Your task to perform on an android device: toggle wifi Image 0: 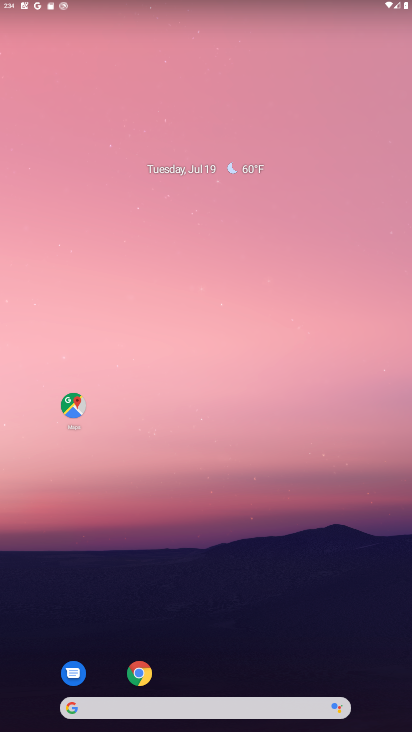
Step 0: drag from (249, 719) to (134, 141)
Your task to perform on an android device: toggle wifi Image 1: 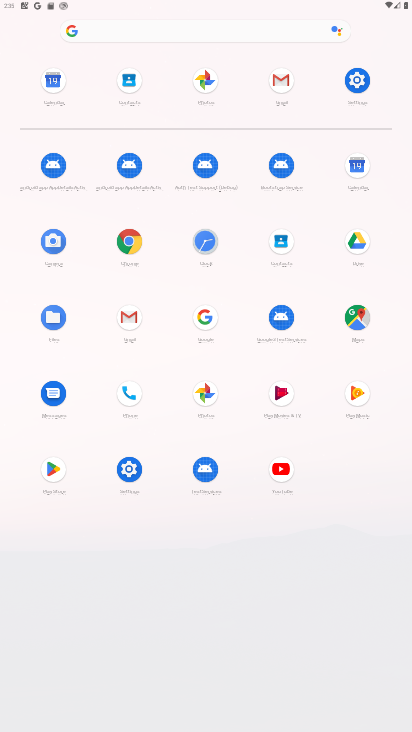
Step 1: click (357, 79)
Your task to perform on an android device: toggle wifi Image 2: 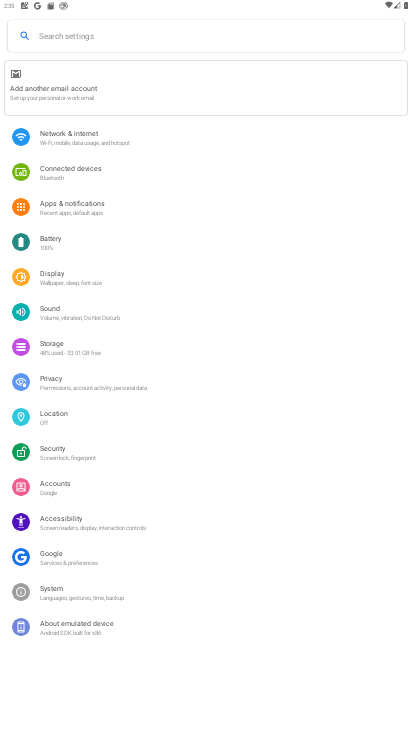
Step 2: click (170, 142)
Your task to perform on an android device: toggle wifi Image 3: 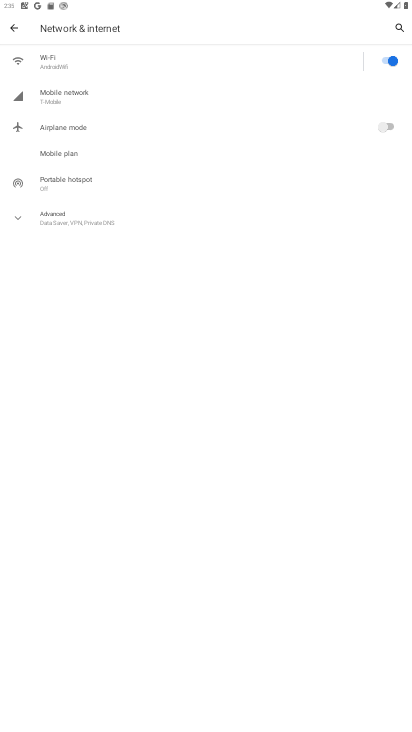
Step 3: click (392, 54)
Your task to perform on an android device: toggle wifi Image 4: 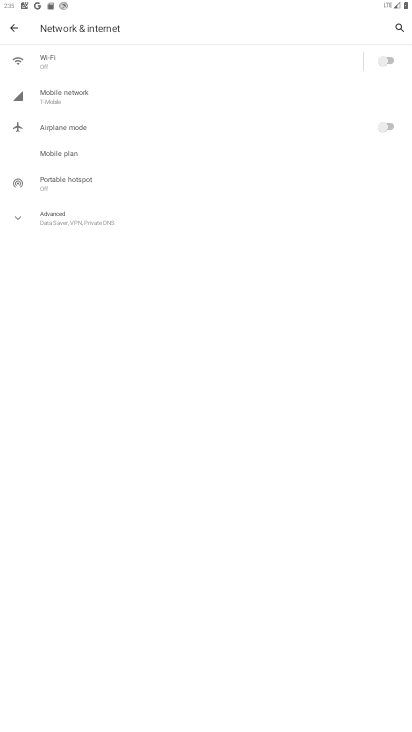
Step 4: task complete